Your task to perform on an android device: Open Youtube and go to the subscriptions tab Image 0: 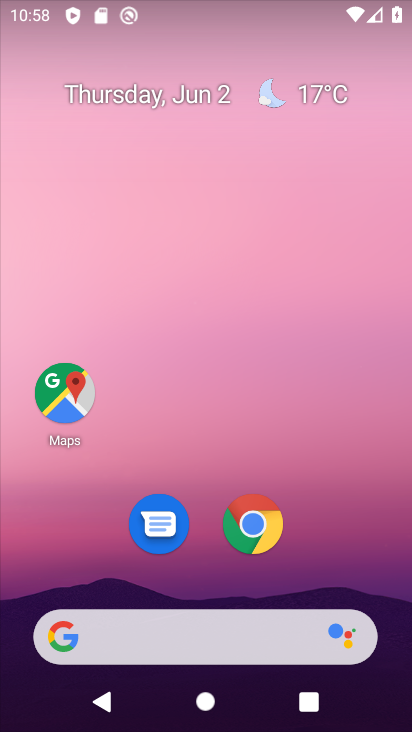
Step 0: drag from (209, 460) to (217, 13)
Your task to perform on an android device: Open Youtube and go to the subscriptions tab Image 1: 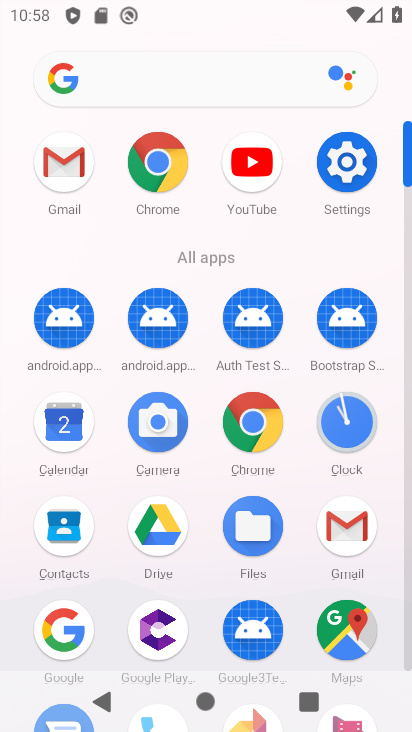
Step 1: click (249, 161)
Your task to perform on an android device: Open Youtube and go to the subscriptions tab Image 2: 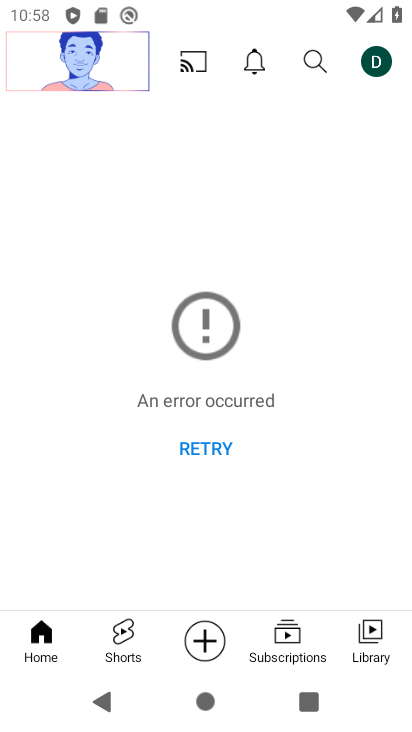
Step 2: click (289, 646)
Your task to perform on an android device: Open Youtube and go to the subscriptions tab Image 3: 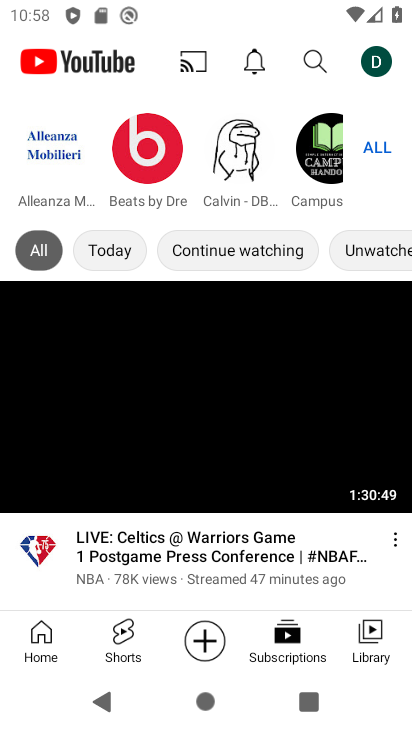
Step 3: task complete